Your task to perform on an android device: open app "DoorDash - Dasher" (install if not already installed), go to login, and select forgot password Image 0: 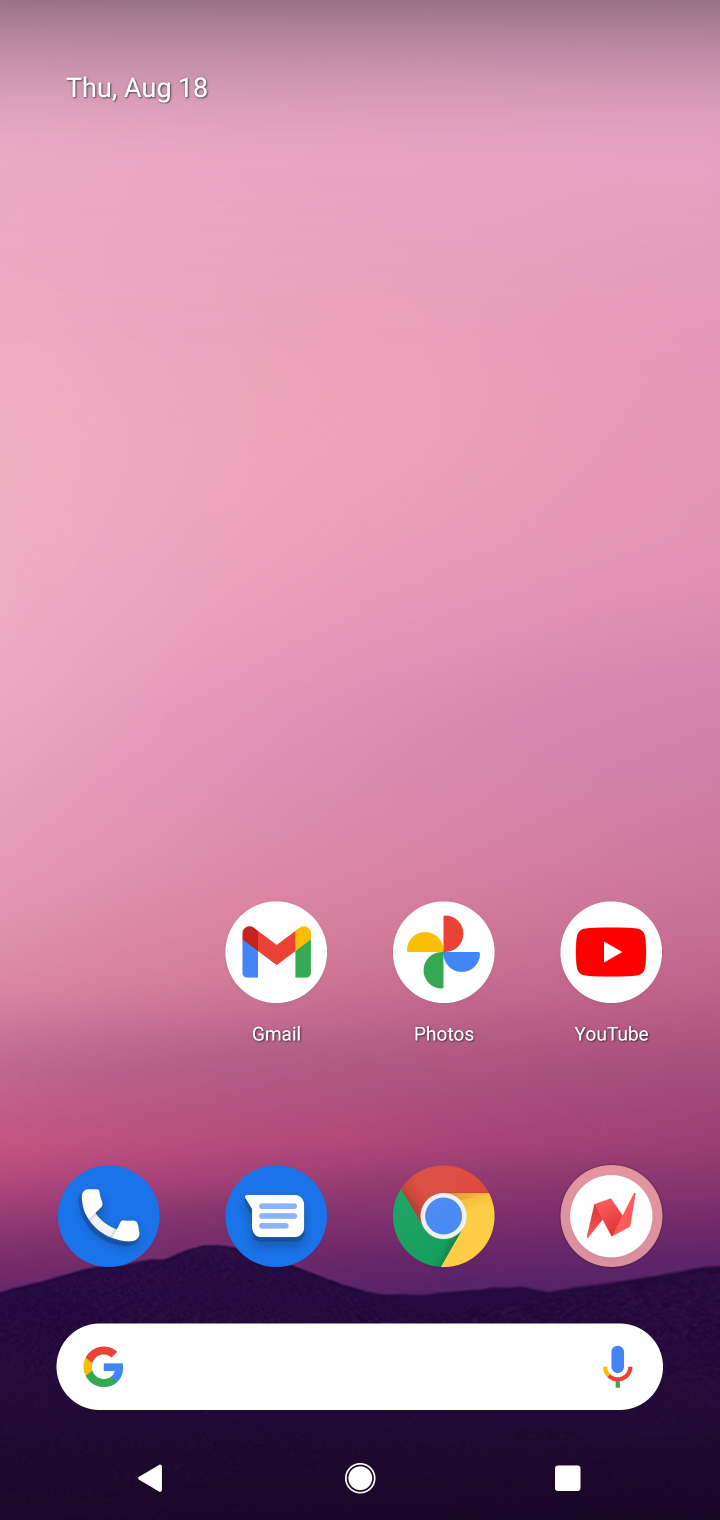
Step 0: drag from (345, 1100) to (360, 426)
Your task to perform on an android device: open app "DoorDash - Dasher" (install if not already installed), go to login, and select forgot password Image 1: 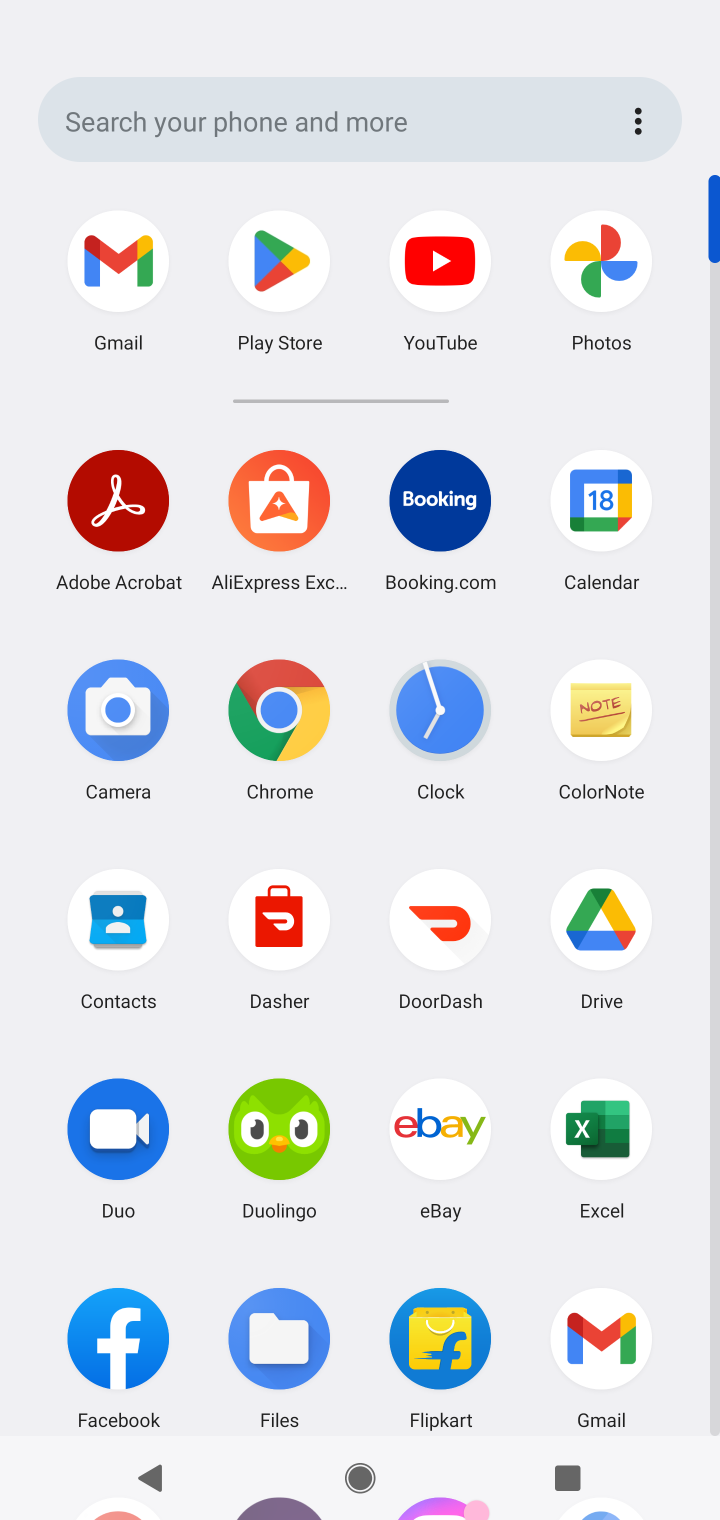
Step 1: click (291, 291)
Your task to perform on an android device: open app "DoorDash - Dasher" (install if not already installed), go to login, and select forgot password Image 2: 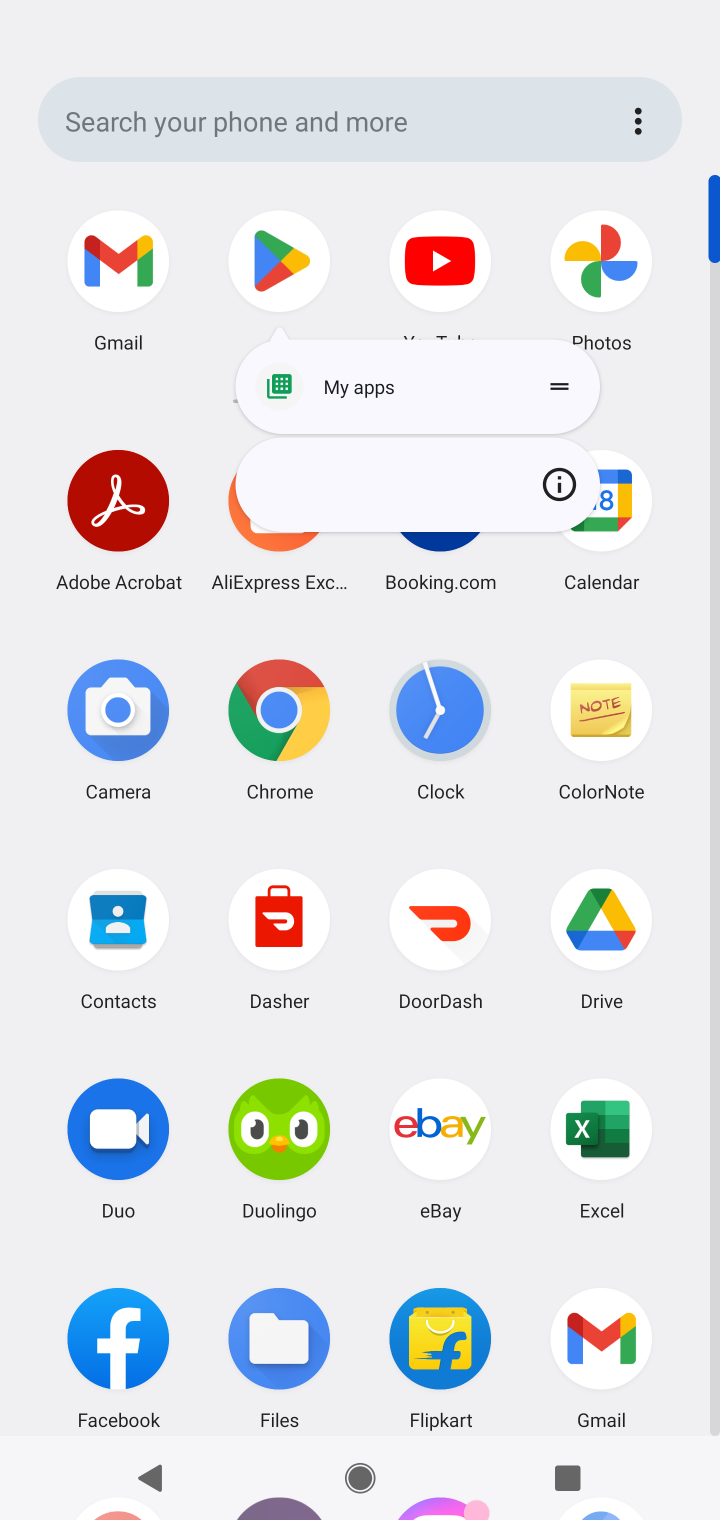
Step 2: click (281, 259)
Your task to perform on an android device: open app "DoorDash - Dasher" (install if not already installed), go to login, and select forgot password Image 3: 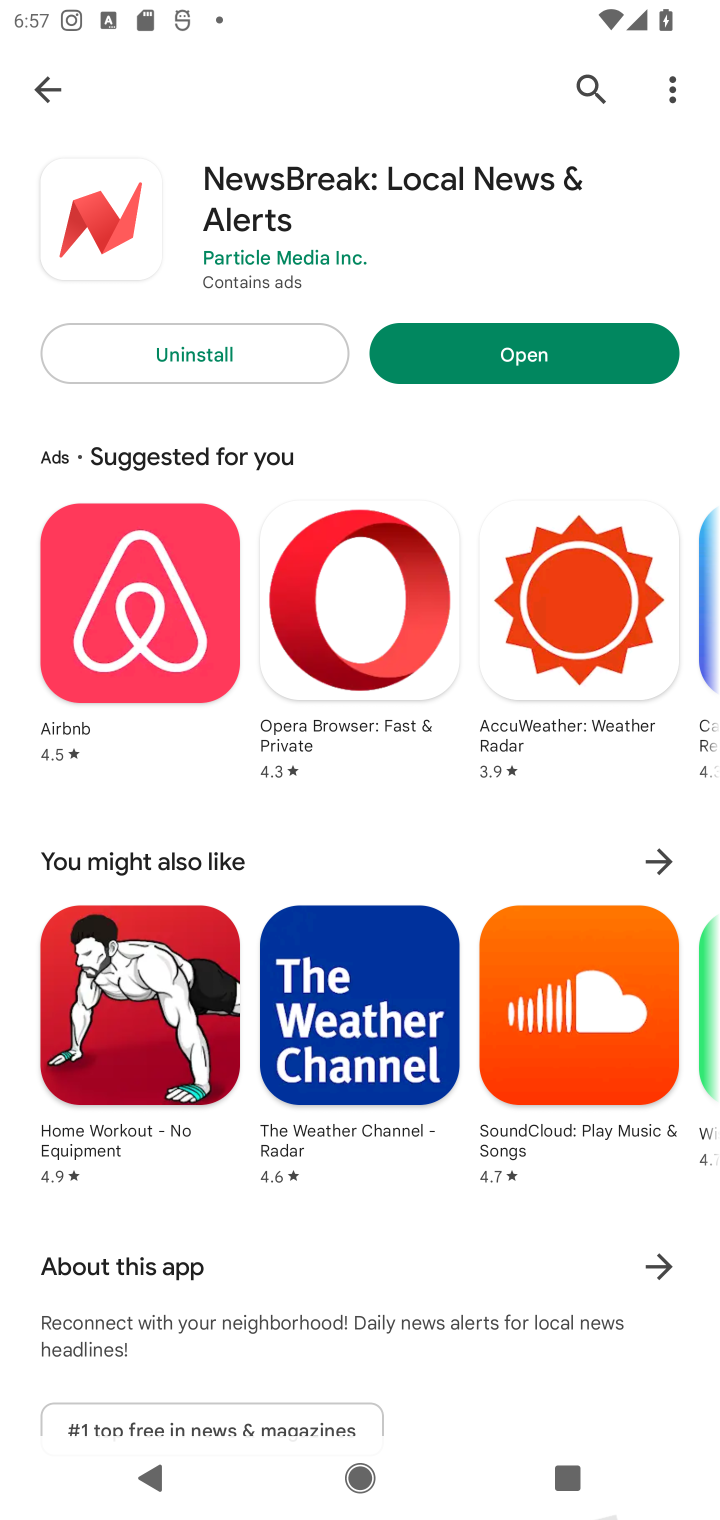
Step 3: click (580, 86)
Your task to perform on an android device: open app "DoorDash - Dasher" (install if not already installed), go to login, and select forgot password Image 4: 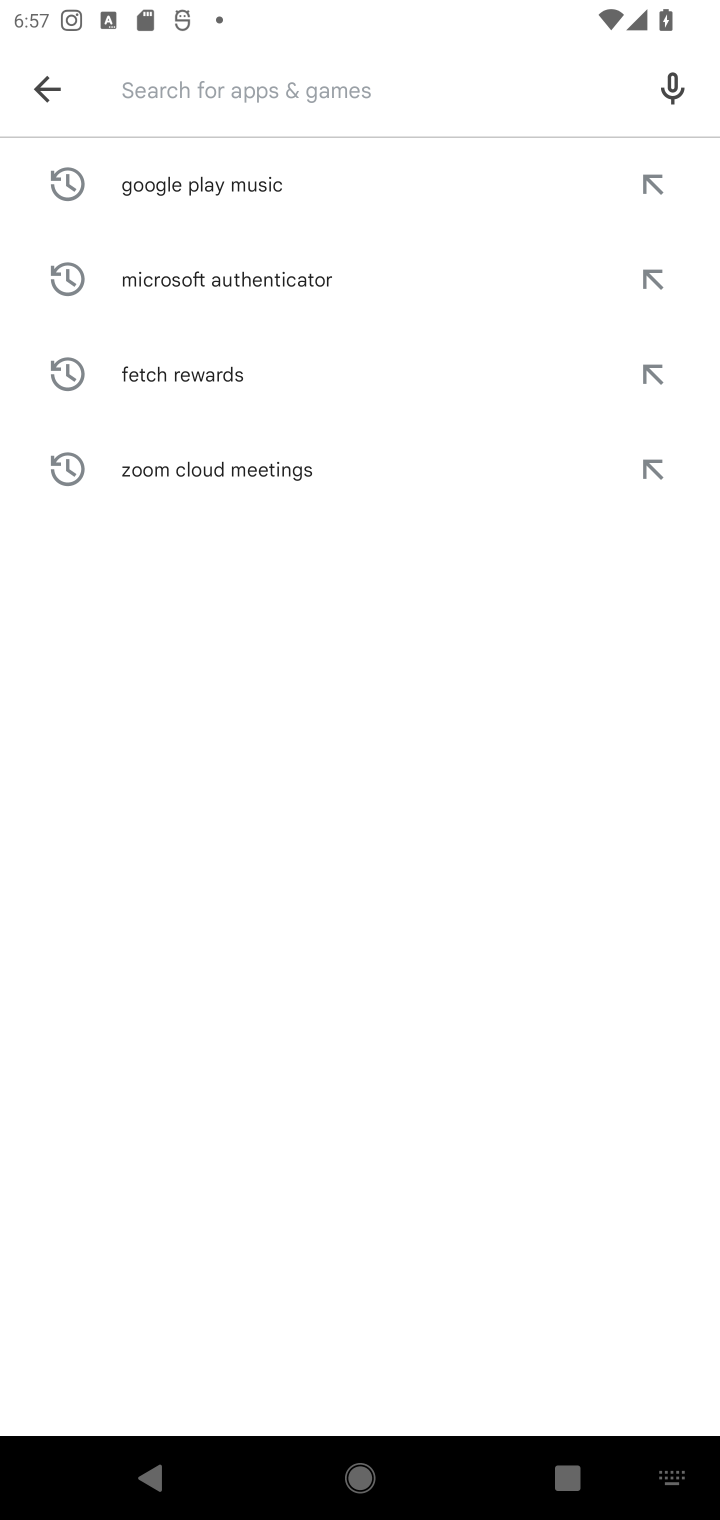
Step 4: type "DoorDash - Dasher"
Your task to perform on an android device: open app "DoorDash - Dasher" (install if not already installed), go to login, and select forgot password Image 5: 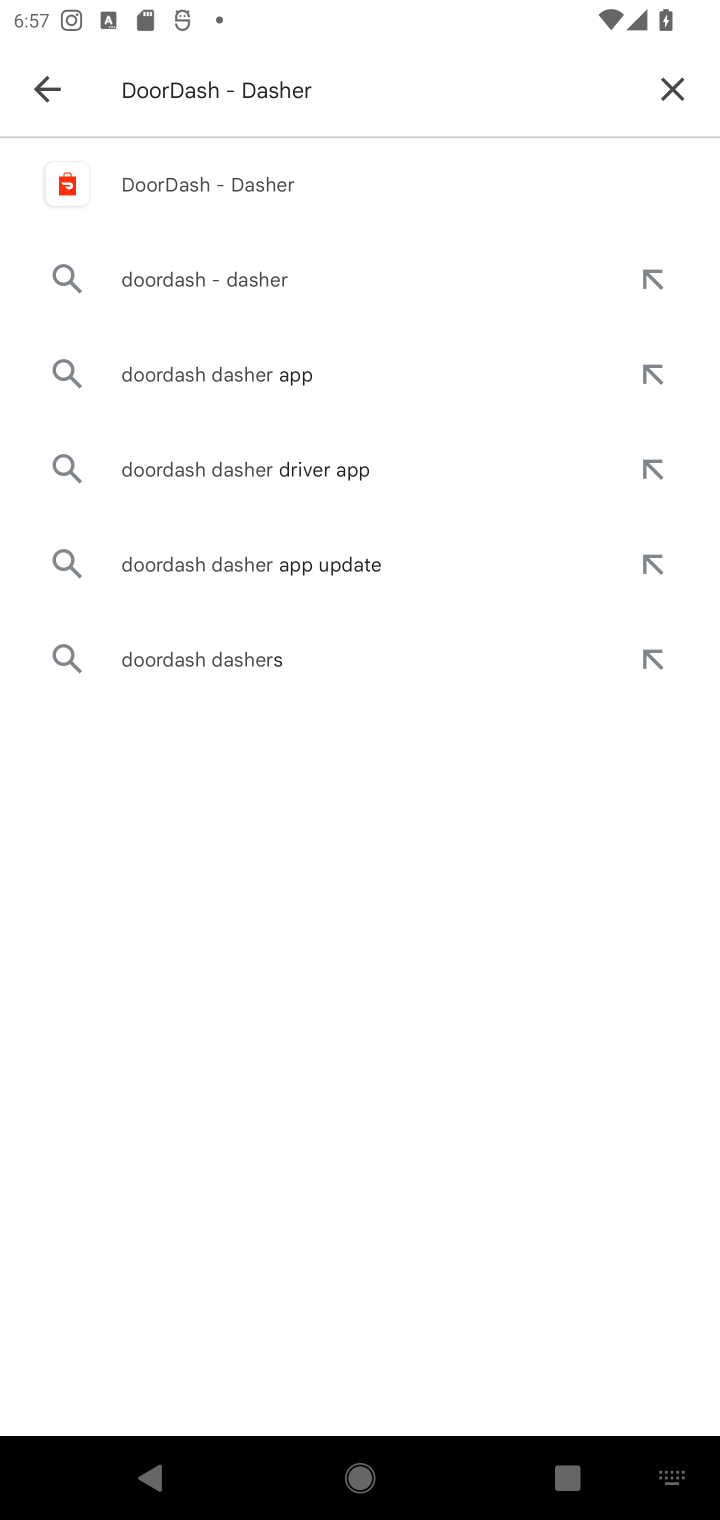
Step 5: click (221, 175)
Your task to perform on an android device: open app "DoorDash - Dasher" (install if not already installed), go to login, and select forgot password Image 6: 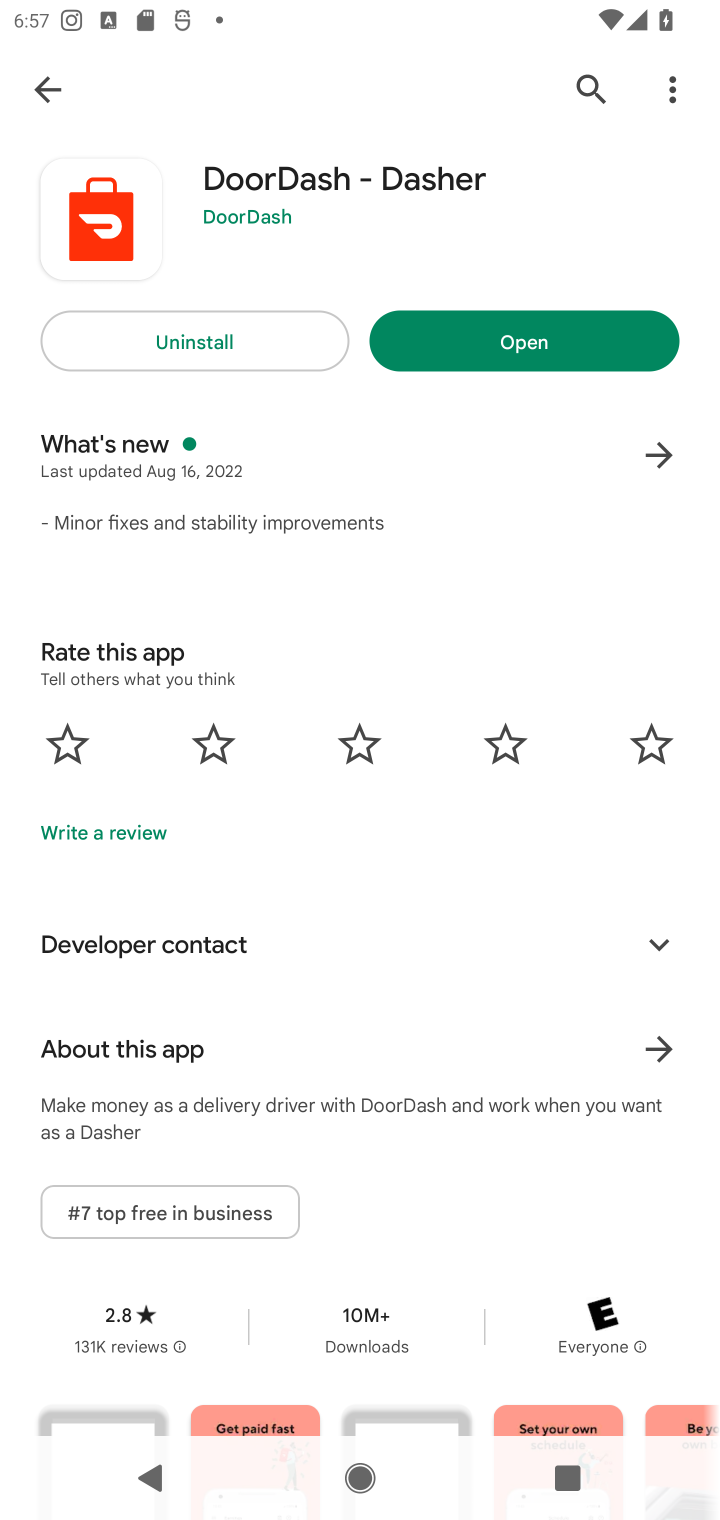
Step 6: click (522, 352)
Your task to perform on an android device: open app "DoorDash - Dasher" (install if not already installed), go to login, and select forgot password Image 7: 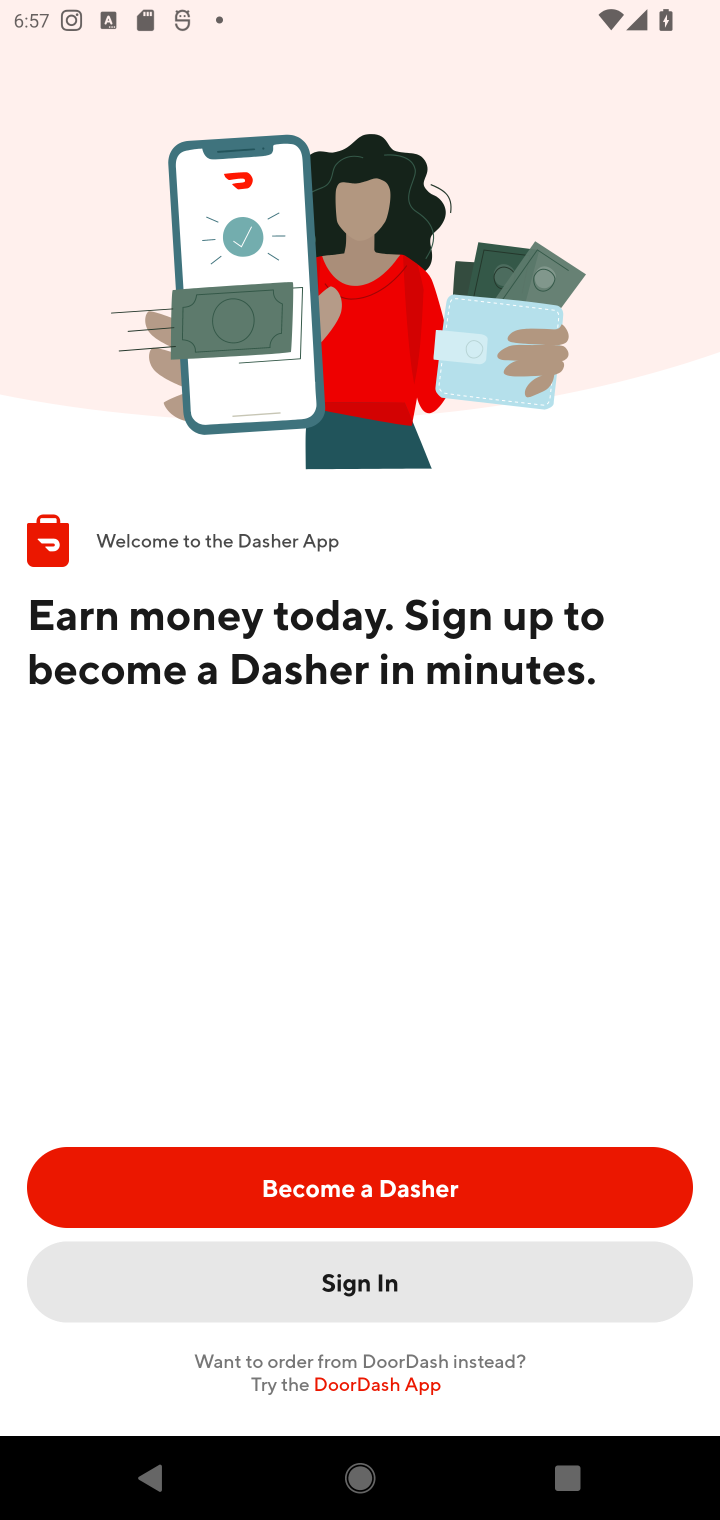
Step 7: task complete